Your task to perform on an android device: Open Yahoo.com Image 0: 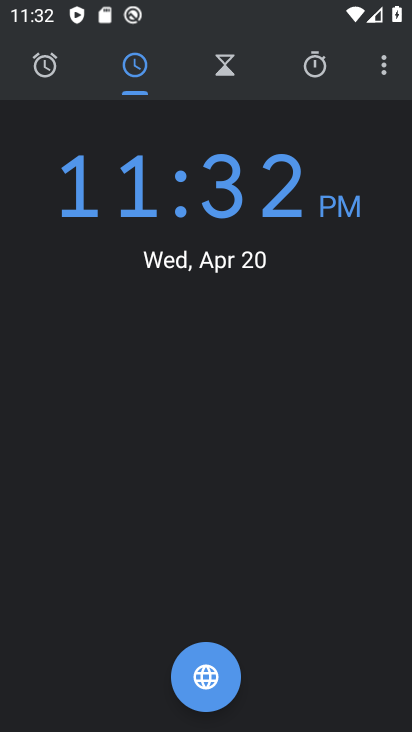
Step 0: press back button
Your task to perform on an android device: Open Yahoo.com Image 1: 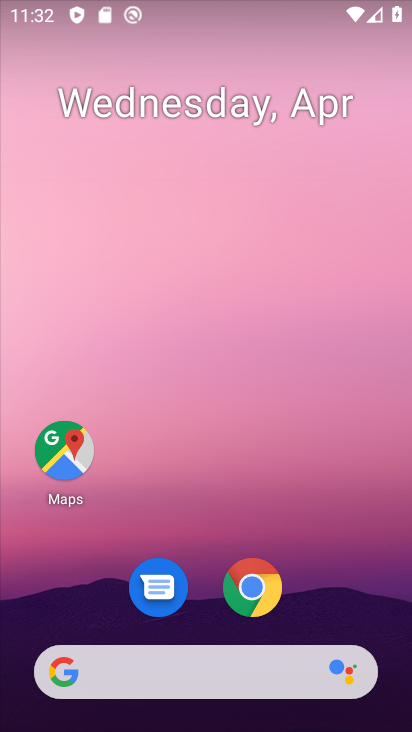
Step 1: drag from (188, 645) to (300, 56)
Your task to perform on an android device: Open Yahoo.com Image 2: 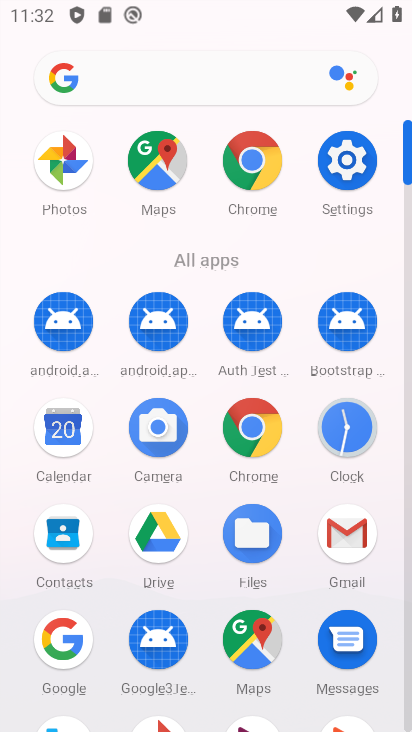
Step 2: click (248, 429)
Your task to perform on an android device: Open Yahoo.com Image 3: 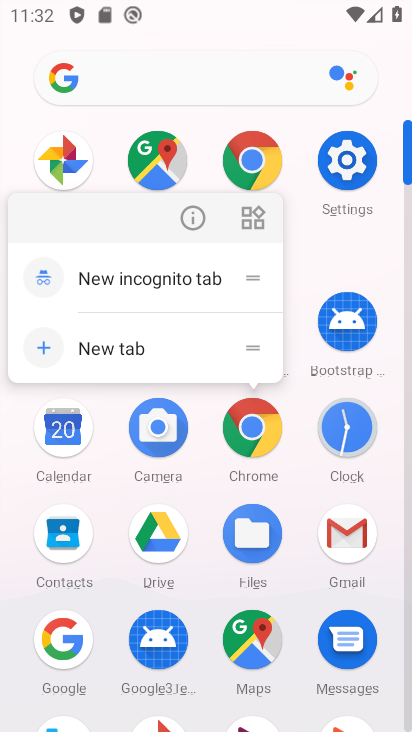
Step 3: click (250, 439)
Your task to perform on an android device: Open Yahoo.com Image 4: 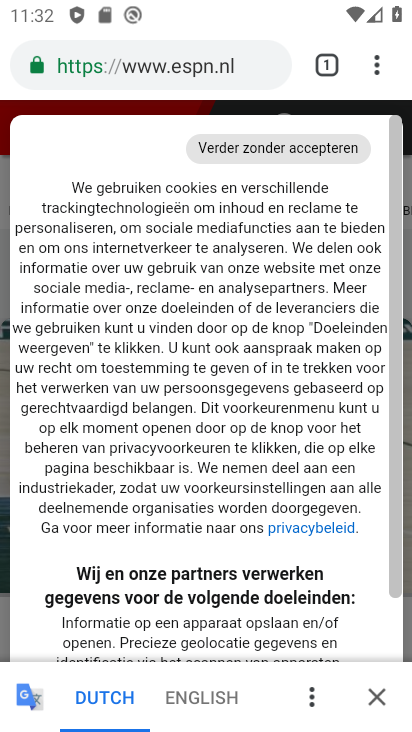
Step 4: press back button
Your task to perform on an android device: Open Yahoo.com Image 5: 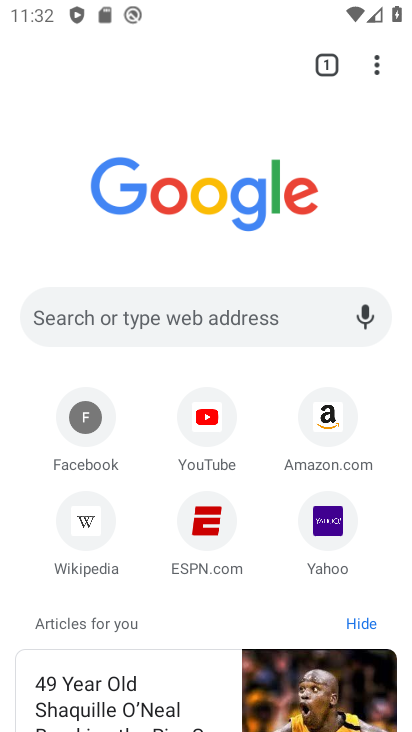
Step 5: click (322, 528)
Your task to perform on an android device: Open Yahoo.com Image 6: 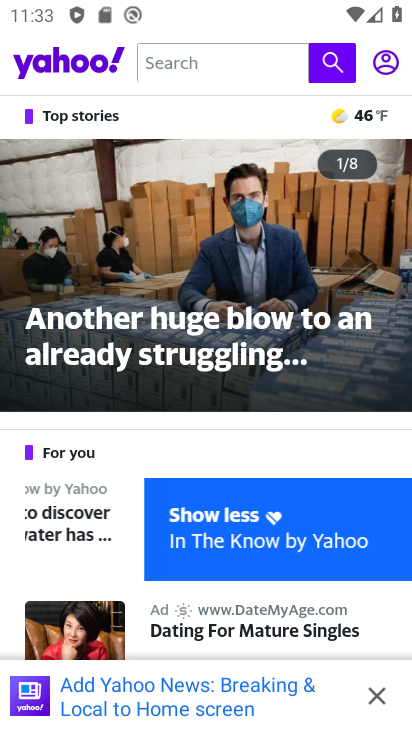
Step 6: task complete